Your task to perform on an android device: Search for razer blackwidow on target.com, select the first entry, add it to the cart, then select checkout. Image 0: 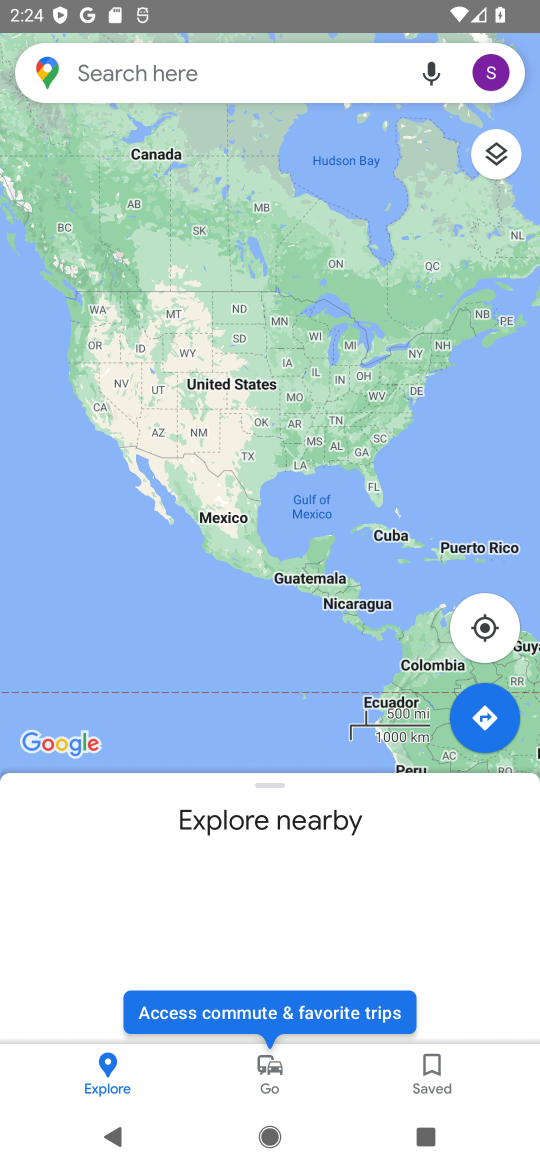
Step 0: press home button
Your task to perform on an android device: Search for razer blackwidow on target.com, select the first entry, add it to the cart, then select checkout. Image 1: 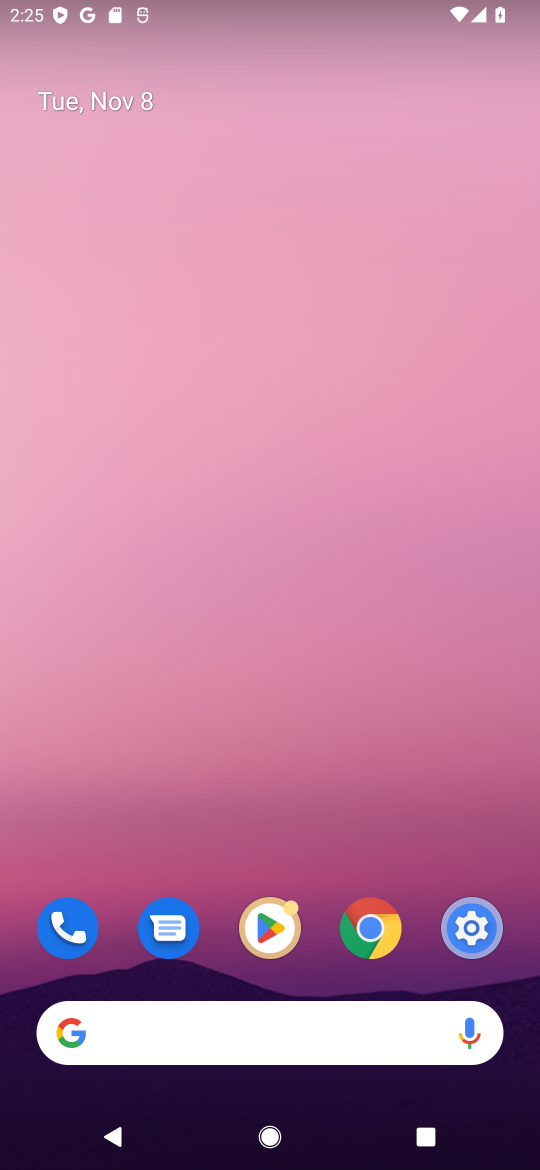
Step 1: click (272, 1027)
Your task to perform on an android device: Search for razer blackwidow on target.com, select the first entry, add it to the cart, then select checkout. Image 2: 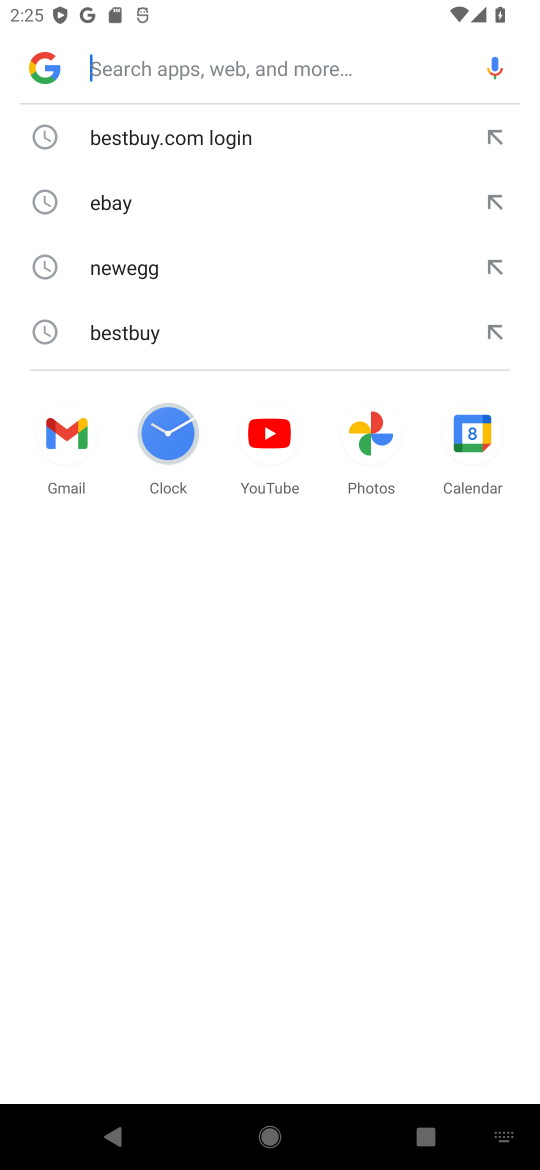
Step 2: type "target.com"
Your task to perform on an android device: Search for razer blackwidow on target.com, select the first entry, add it to the cart, then select checkout. Image 3: 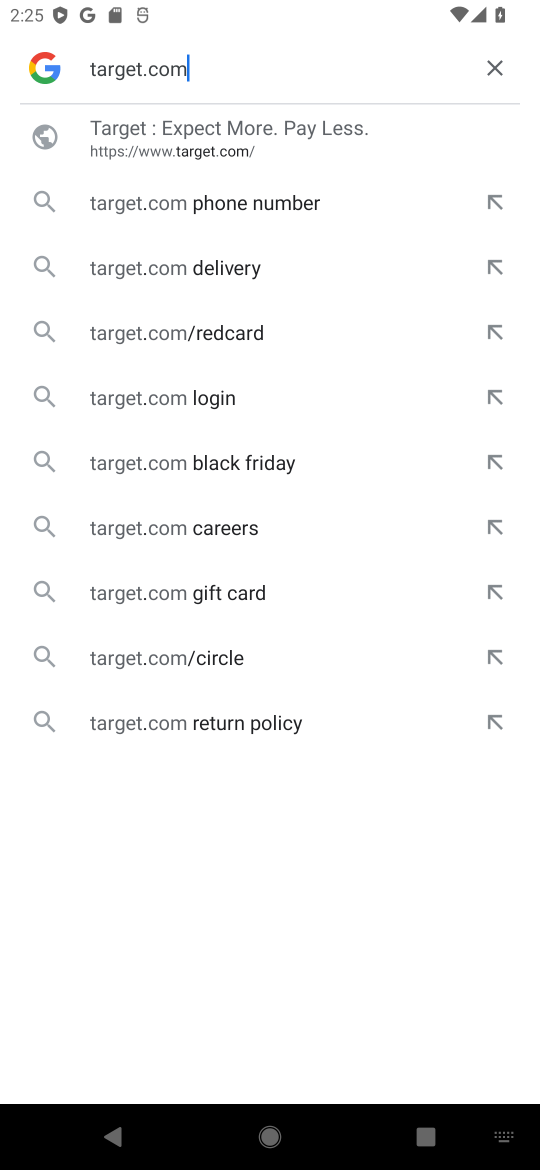
Step 3: click (219, 154)
Your task to perform on an android device: Search for razer blackwidow on target.com, select the first entry, add it to the cart, then select checkout. Image 4: 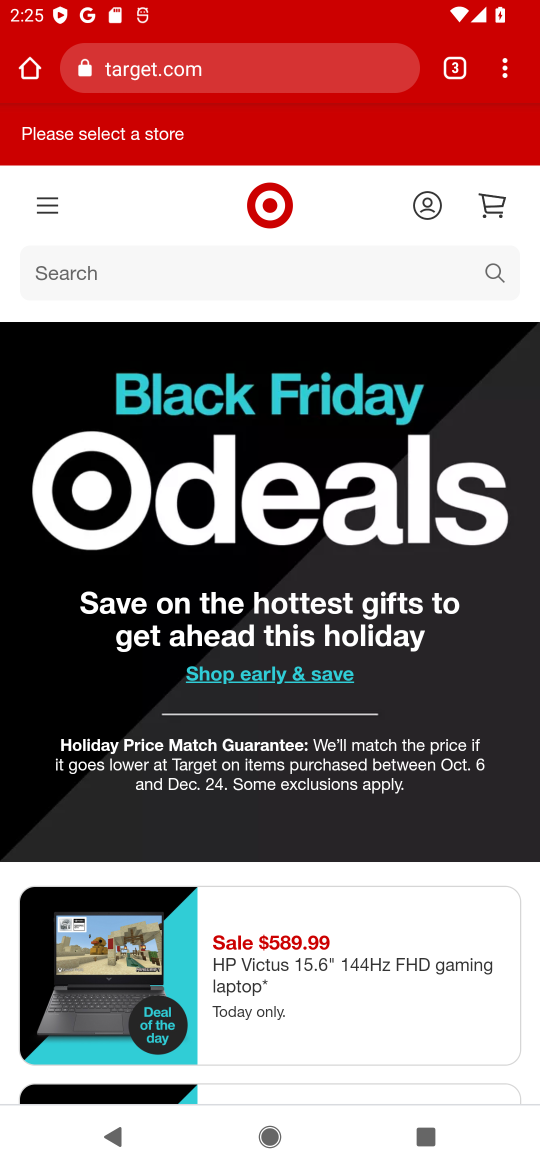
Step 4: click (214, 284)
Your task to perform on an android device: Search for razer blackwidow on target.com, select the first entry, add it to the cart, then select checkout. Image 5: 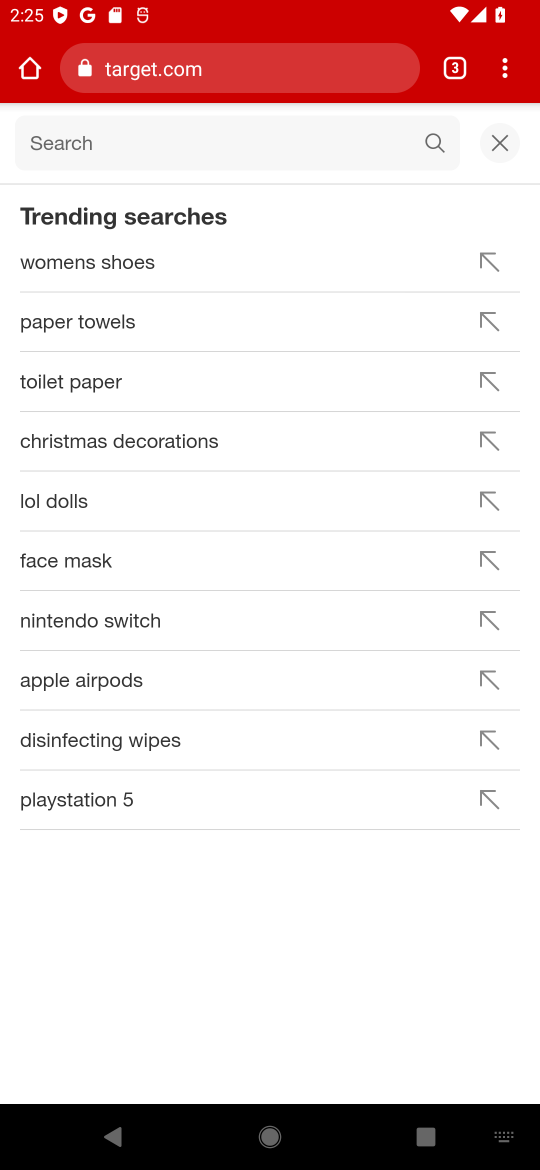
Step 5: type "razer blackwidow "
Your task to perform on an android device: Search for razer blackwidow on target.com, select the first entry, add it to the cart, then select checkout. Image 6: 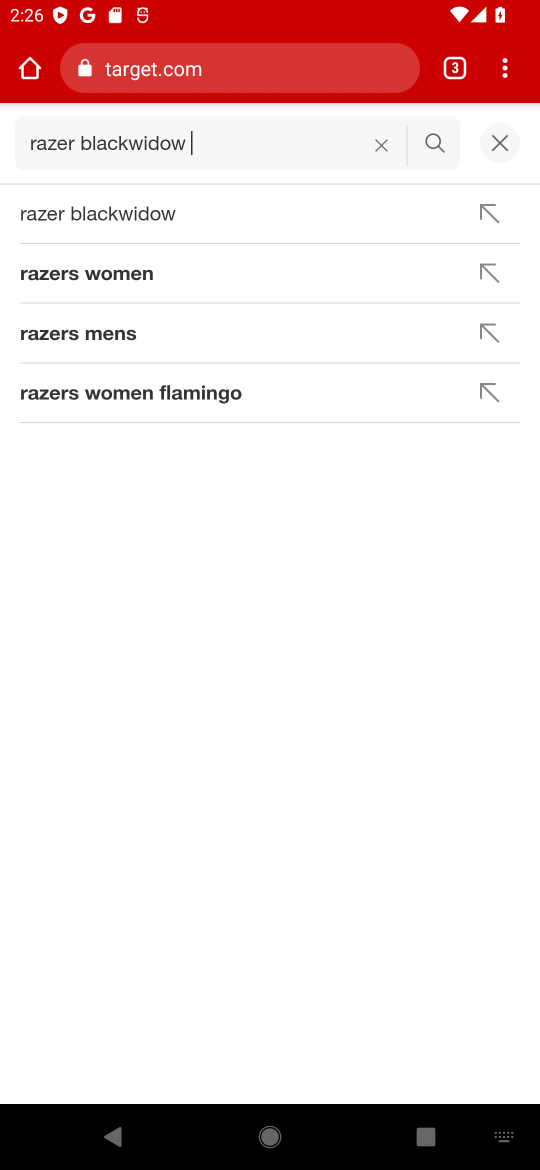
Step 6: click (104, 213)
Your task to perform on an android device: Search for razer blackwidow on target.com, select the first entry, add it to the cart, then select checkout. Image 7: 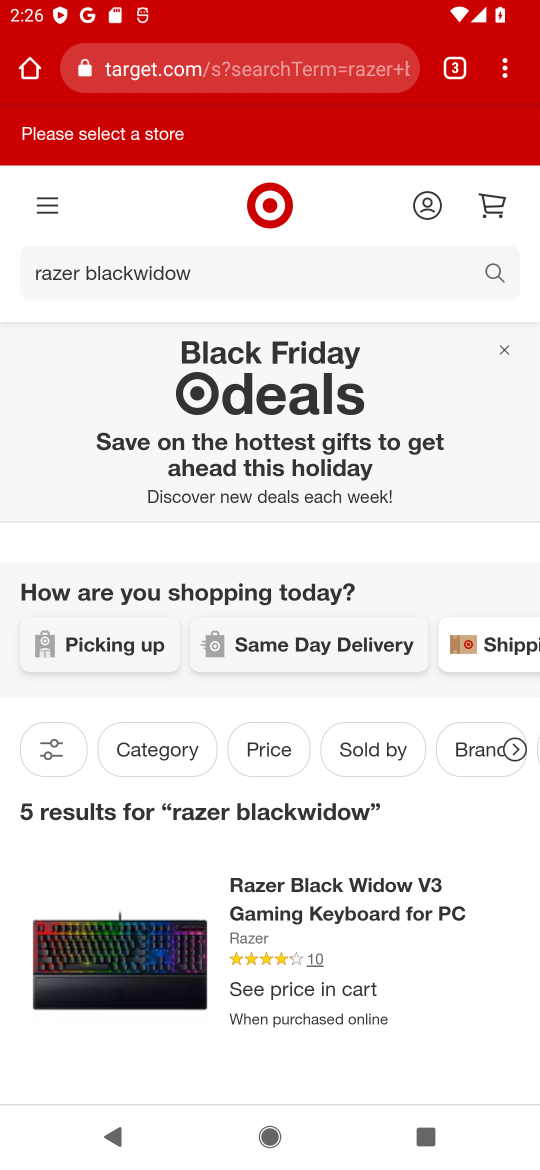
Step 7: drag from (265, 919) to (264, 687)
Your task to perform on an android device: Search for razer blackwidow on target.com, select the first entry, add it to the cart, then select checkout. Image 8: 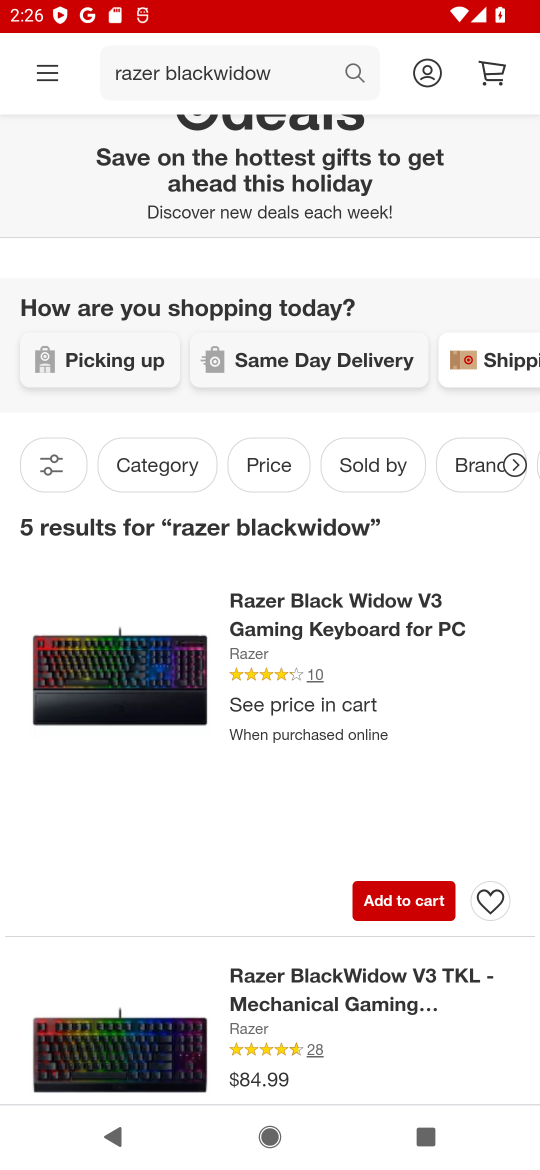
Step 8: click (206, 649)
Your task to perform on an android device: Search for razer blackwidow on target.com, select the first entry, add it to the cart, then select checkout. Image 9: 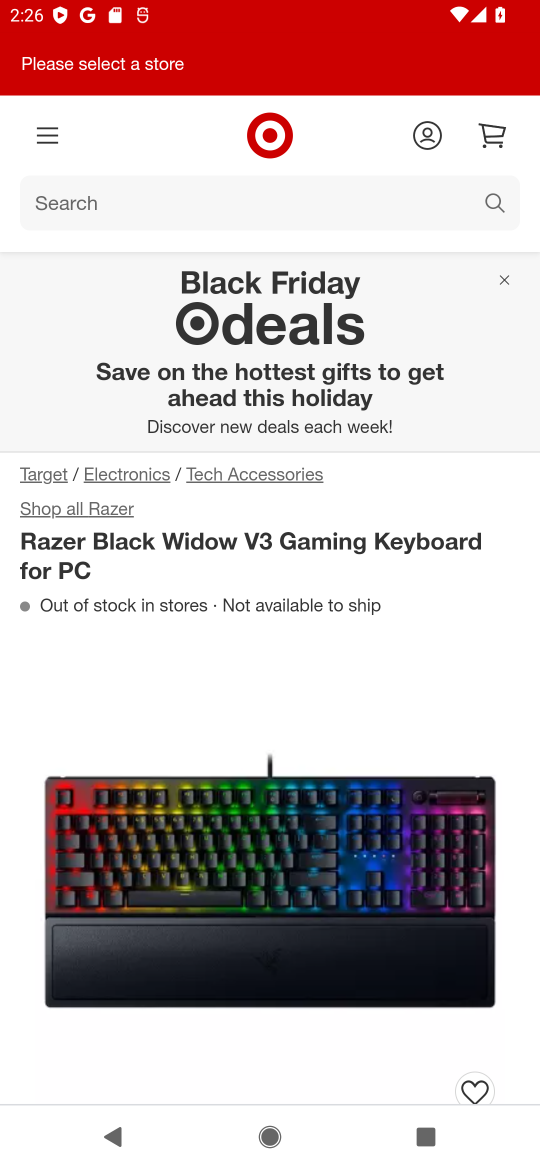
Step 9: drag from (260, 693) to (260, 416)
Your task to perform on an android device: Search for razer blackwidow on target.com, select the first entry, add it to the cart, then select checkout. Image 10: 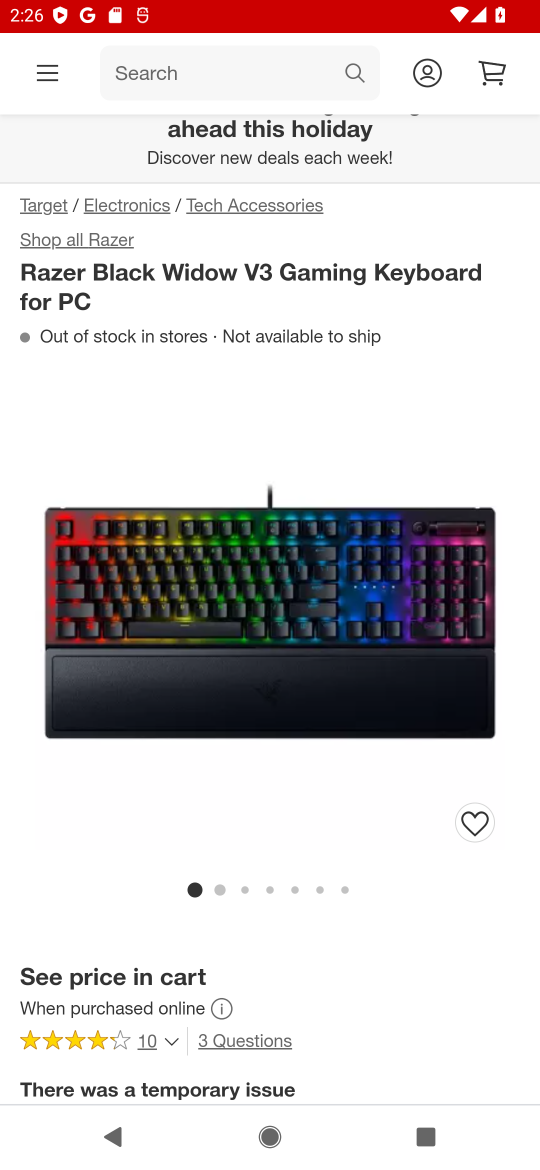
Step 10: drag from (272, 875) to (308, 522)
Your task to perform on an android device: Search for razer blackwidow on target.com, select the first entry, add it to the cart, then select checkout. Image 11: 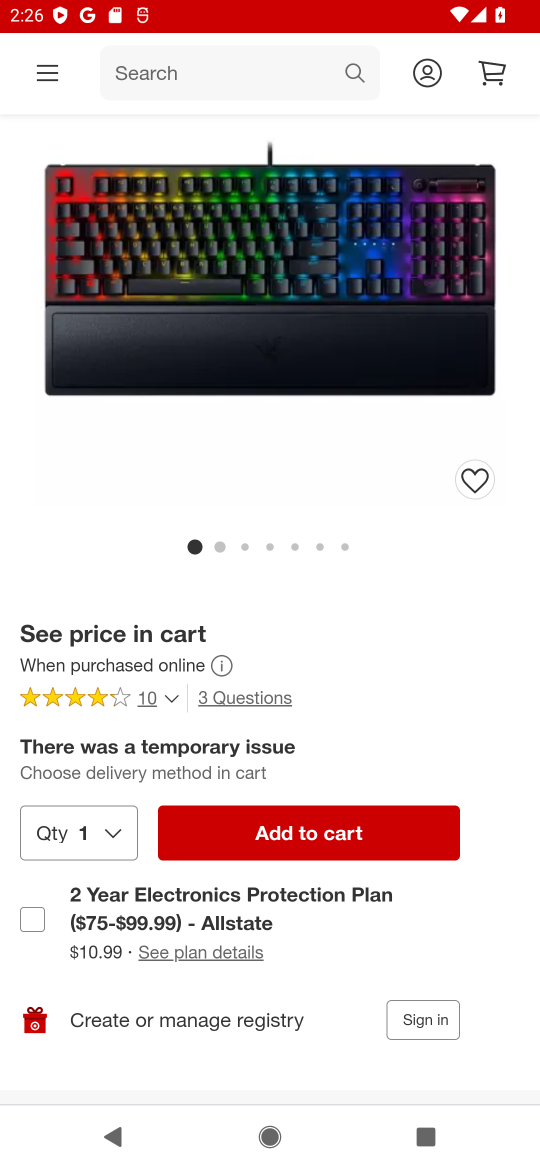
Step 11: click (296, 834)
Your task to perform on an android device: Search for razer blackwidow on target.com, select the first entry, add it to the cart, then select checkout. Image 12: 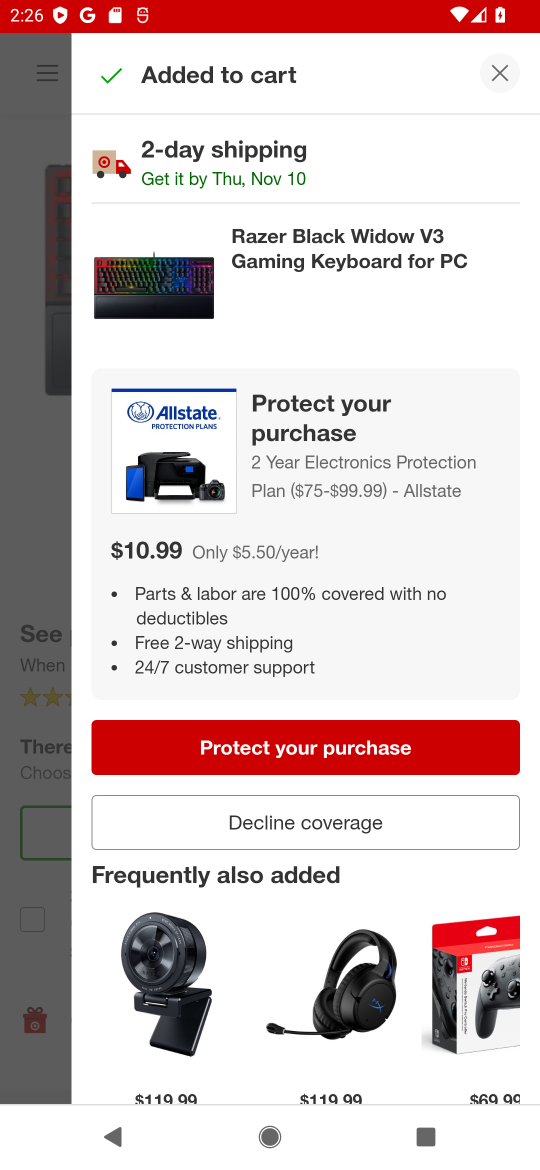
Step 12: drag from (347, 662) to (323, 375)
Your task to perform on an android device: Search for razer blackwidow on target.com, select the first entry, add it to the cart, then select checkout. Image 13: 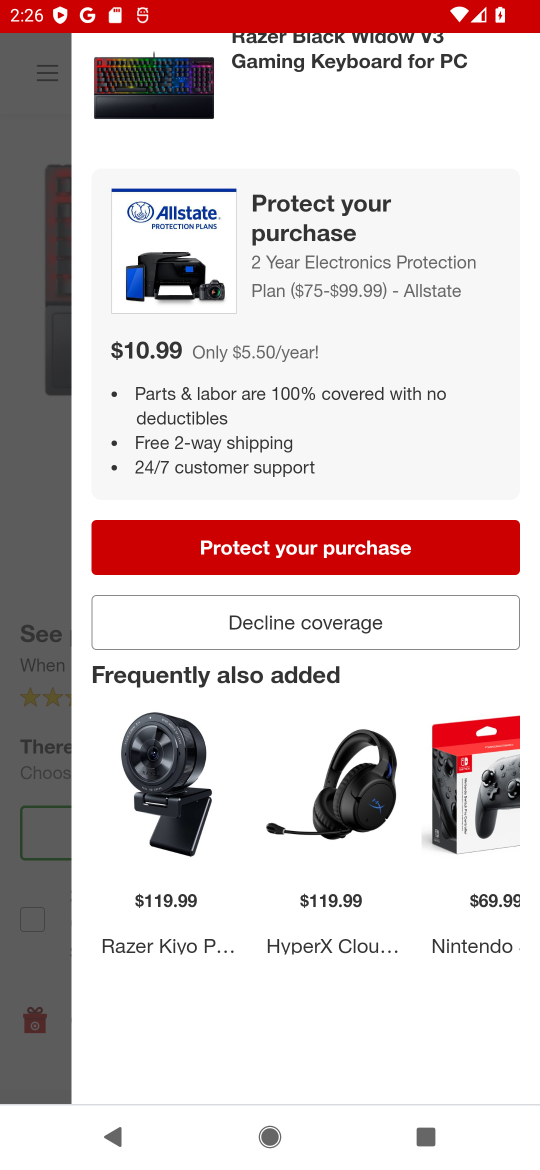
Step 13: drag from (298, 952) to (298, 542)
Your task to perform on an android device: Search for razer blackwidow on target.com, select the first entry, add it to the cart, then select checkout. Image 14: 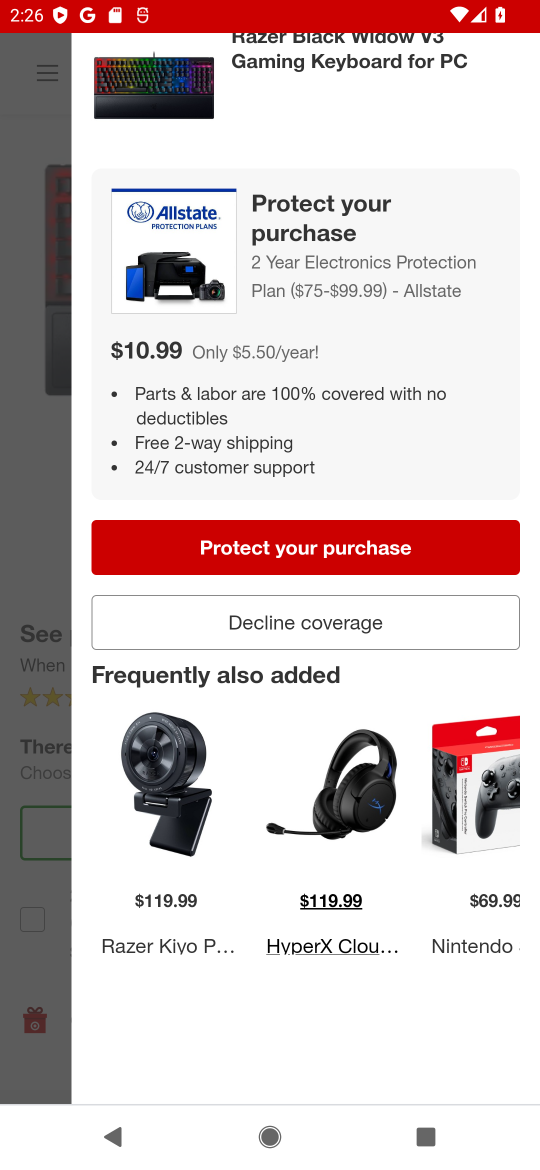
Step 14: drag from (320, 443) to (337, 713)
Your task to perform on an android device: Search for razer blackwidow on target.com, select the first entry, add it to the cart, then select checkout. Image 15: 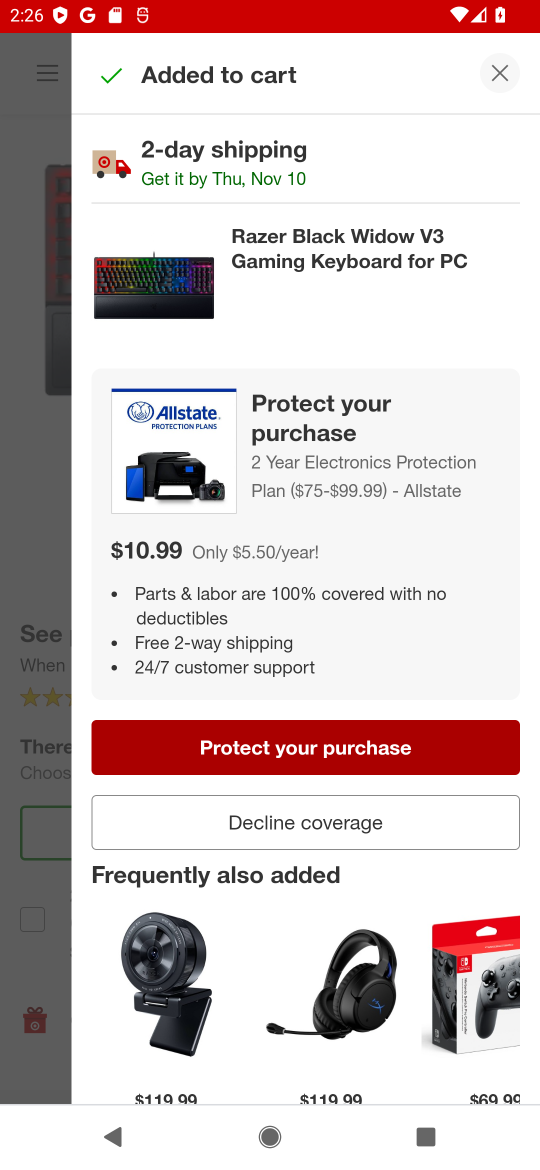
Step 15: click (309, 820)
Your task to perform on an android device: Search for razer blackwidow on target.com, select the first entry, add it to the cart, then select checkout. Image 16: 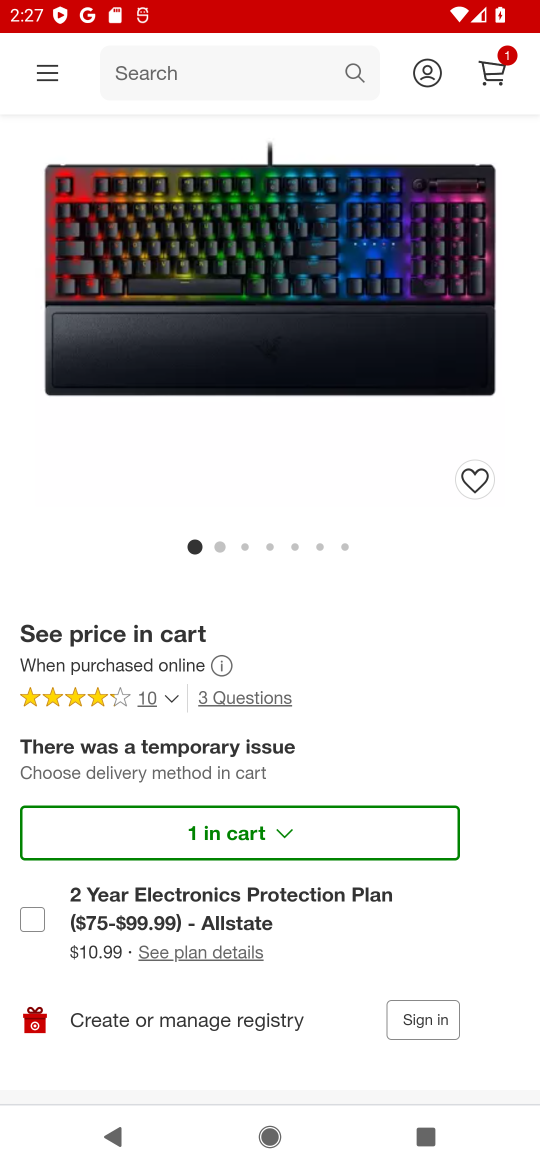
Step 16: click (492, 74)
Your task to perform on an android device: Search for razer blackwidow on target.com, select the first entry, add it to the cart, then select checkout. Image 17: 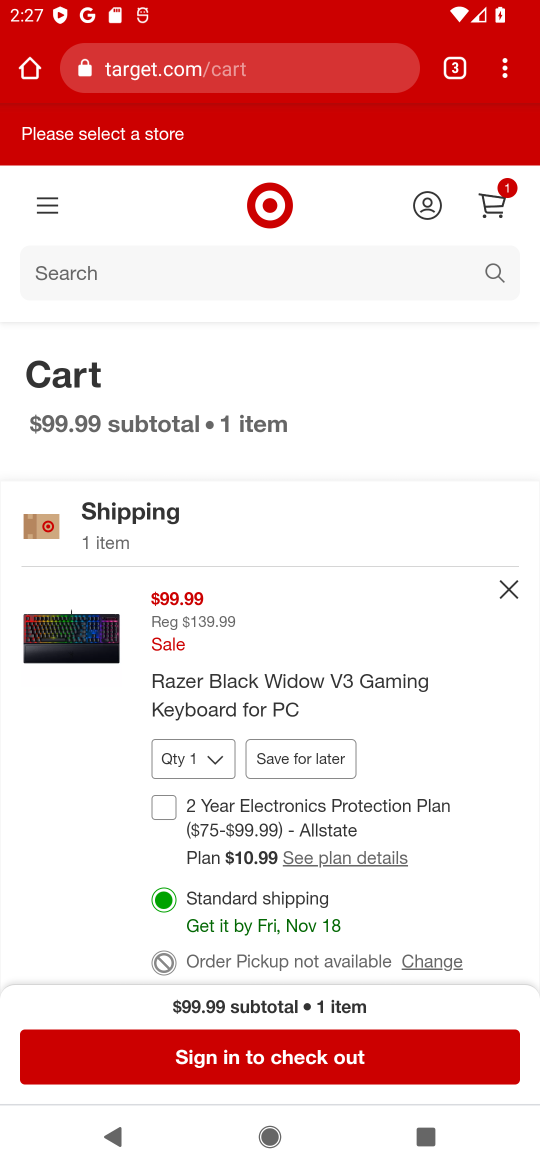
Step 17: click (252, 1059)
Your task to perform on an android device: Search for razer blackwidow on target.com, select the first entry, add it to the cart, then select checkout. Image 18: 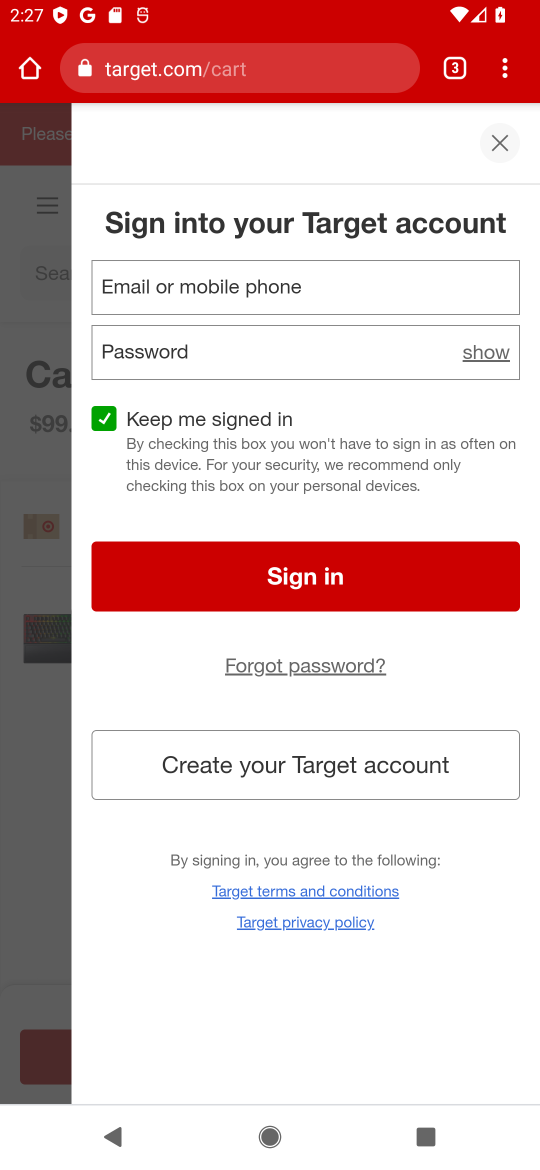
Step 18: task complete